Your task to perform on an android device: turn on priority inbox in the gmail app Image 0: 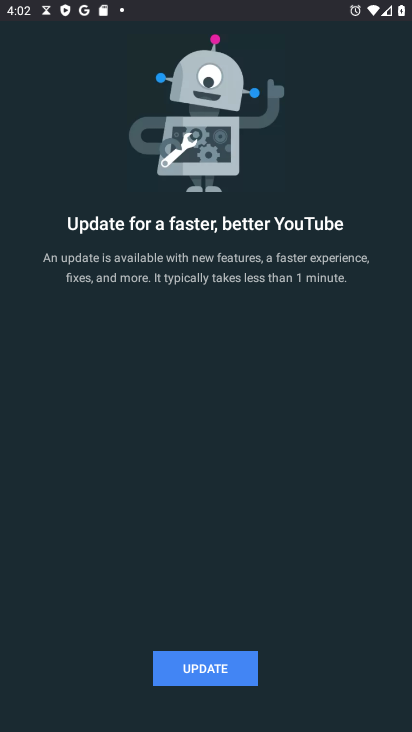
Step 0: press back button
Your task to perform on an android device: turn on priority inbox in the gmail app Image 1: 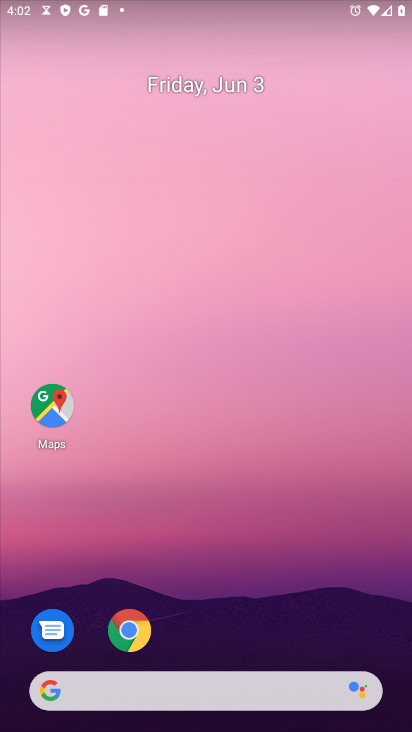
Step 1: drag from (237, 593) to (234, 31)
Your task to perform on an android device: turn on priority inbox in the gmail app Image 2: 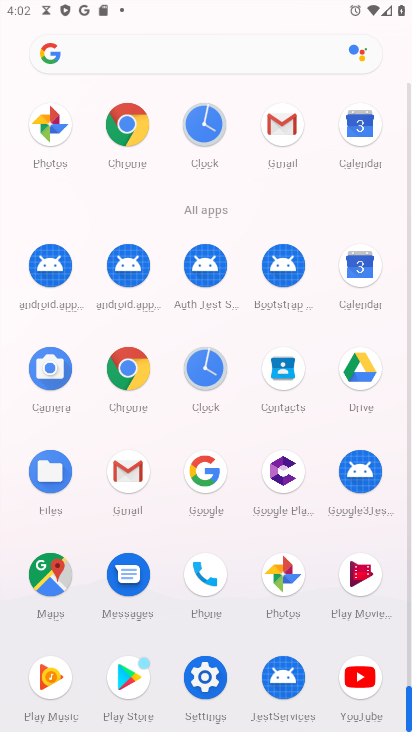
Step 2: click (126, 465)
Your task to perform on an android device: turn on priority inbox in the gmail app Image 3: 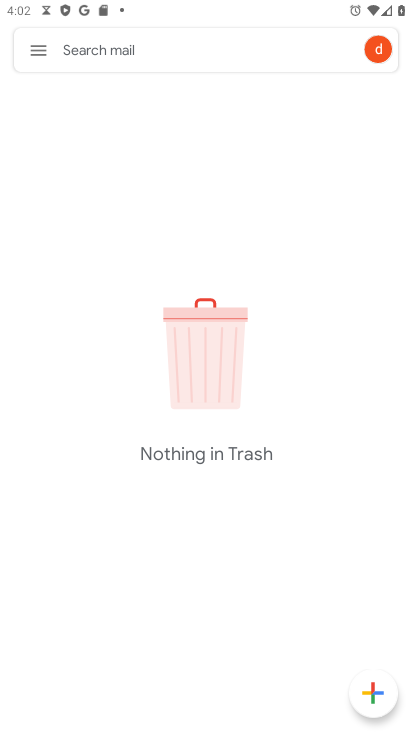
Step 3: click (46, 51)
Your task to perform on an android device: turn on priority inbox in the gmail app Image 4: 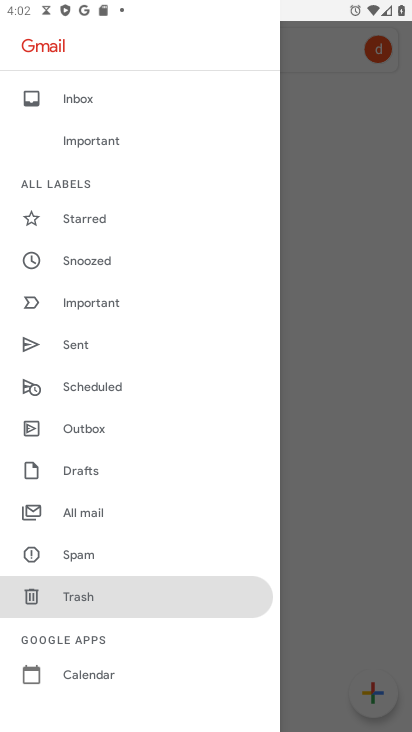
Step 4: drag from (116, 636) to (147, 222)
Your task to perform on an android device: turn on priority inbox in the gmail app Image 5: 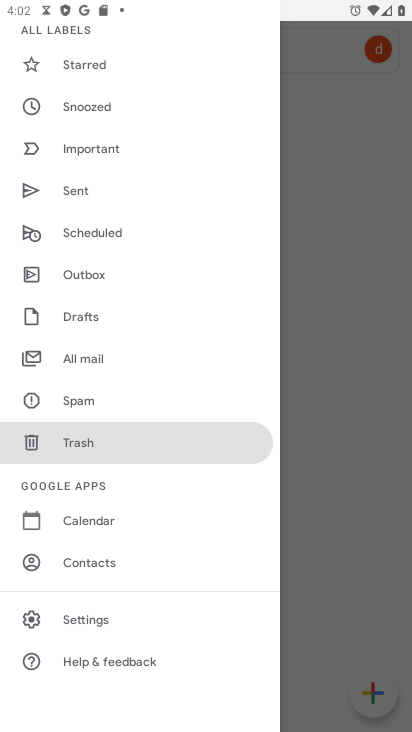
Step 5: click (98, 612)
Your task to perform on an android device: turn on priority inbox in the gmail app Image 6: 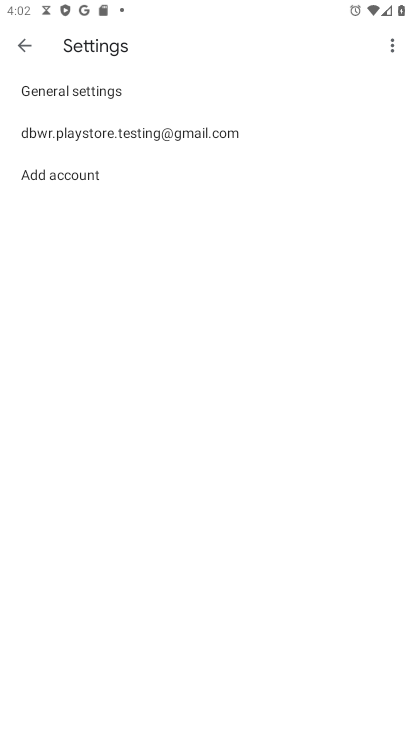
Step 6: click (180, 131)
Your task to perform on an android device: turn on priority inbox in the gmail app Image 7: 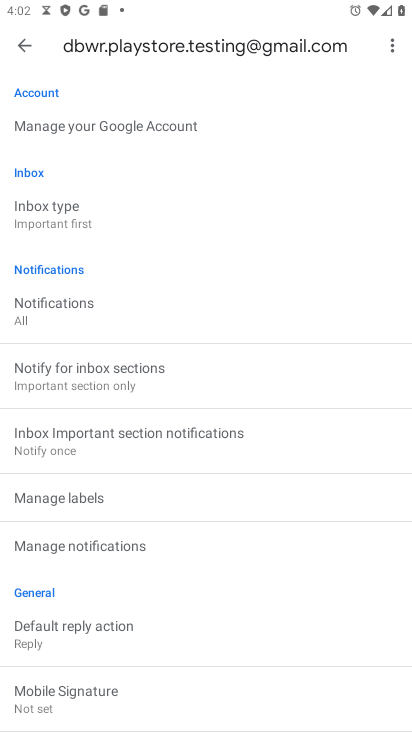
Step 7: click (108, 217)
Your task to perform on an android device: turn on priority inbox in the gmail app Image 8: 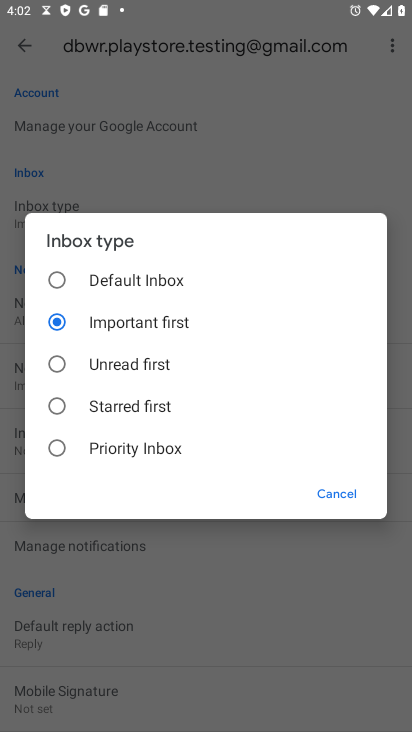
Step 8: click (129, 453)
Your task to perform on an android device: turn on priority inbox in the gmail app Image 9: 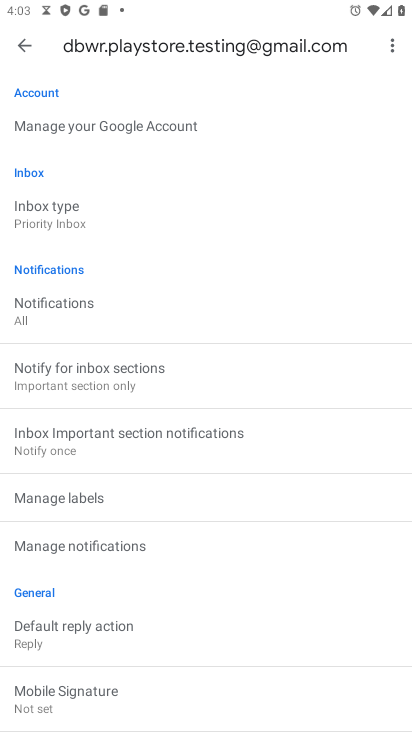
Step 9: task complete